Your task to perform on an android device: Open privacy settings Image 0: 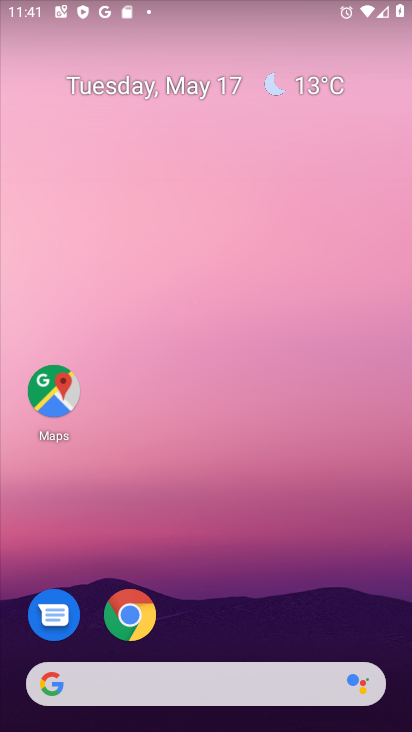
Step 0: drag from (286, 610) to (314, 105)
Your task to perform on an android device: Open privacy settings Image 1: 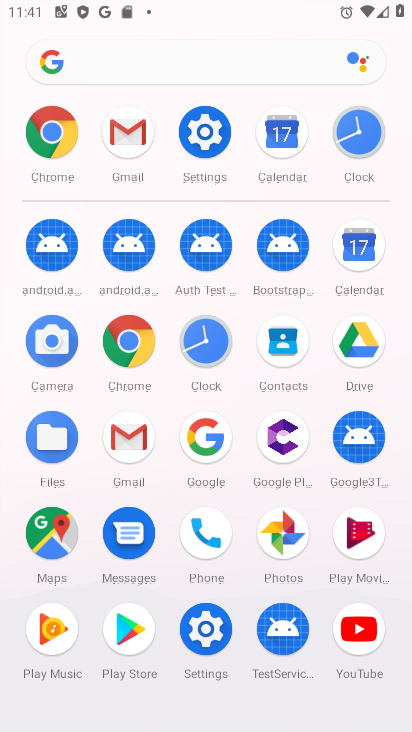
Step 1: click (198, 125)
Your task to perform on an android device: Open privacy settings Image 2: 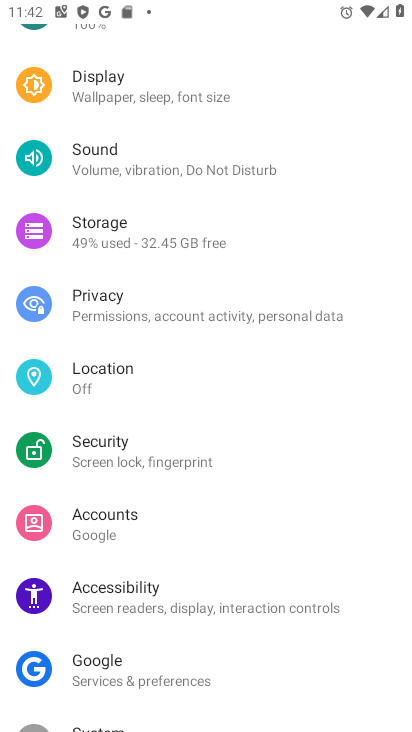
Step 2: drag from (270, 620) to (316, 273)
Your task to perform on an android device: Open privacy settings Image 3: 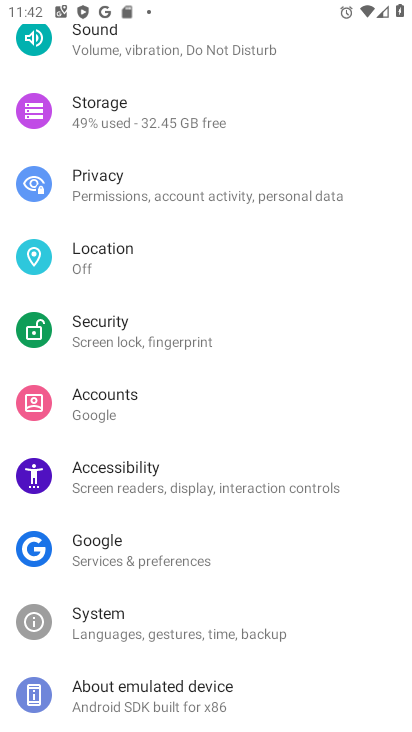
Step 3: click (210, 193)
Your task to perform on an android device: Open privacy settings Image 4: 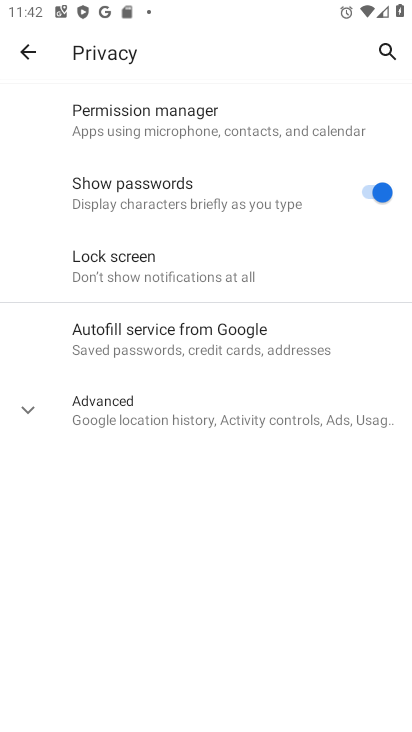
Step 4: task complete